Your task to perform on an android device: Turn off the flashlight Image 0: 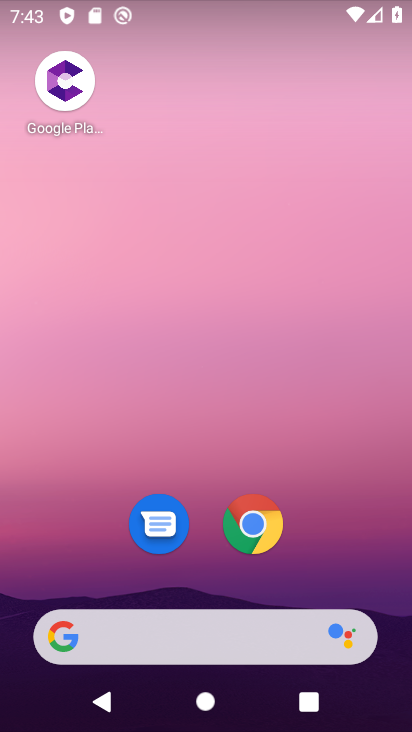
Step 0: drag from (289, 452) to (265, 16)
Your task to perform on an android device: Turn off the flashlight Image 1: 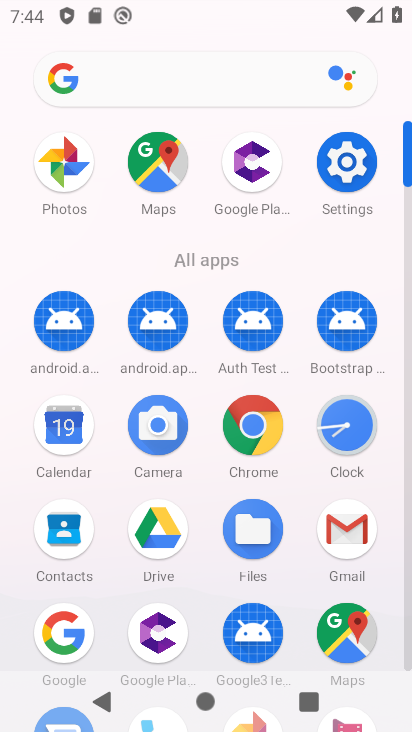
Step 1: click (353, 160)
Your task to perform on an android device: Turn off the flashlight Image 2: 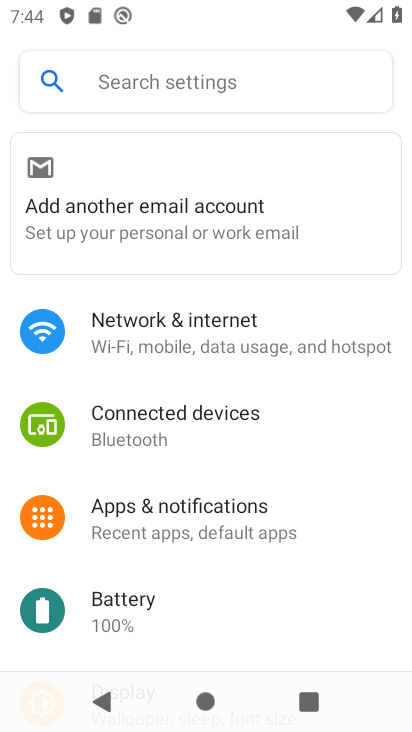
Step 2: click (266, 64)
Your task to perform on an android device: Turn off the flashlight Image 3: 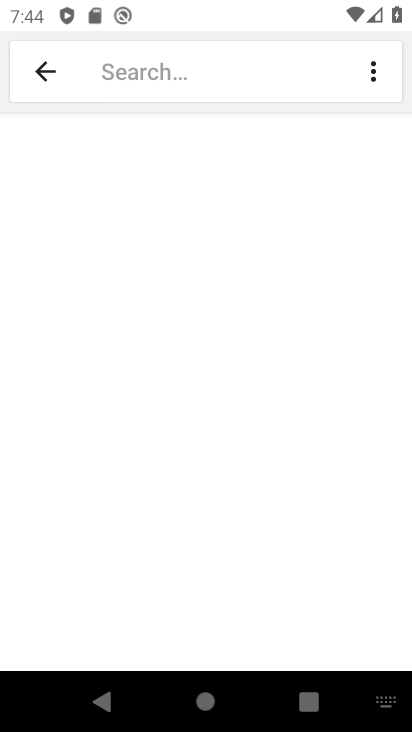
Step 3: type "Flashlight"
Your task to perform on an android device: Turn off the flashlight Image 4: 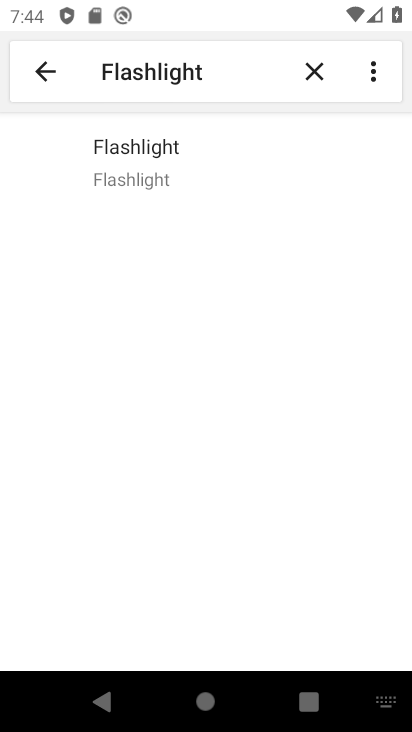
Step 4: click (125, 153)
Your task to perform on an android device: Turn off the flashlight Image 5: 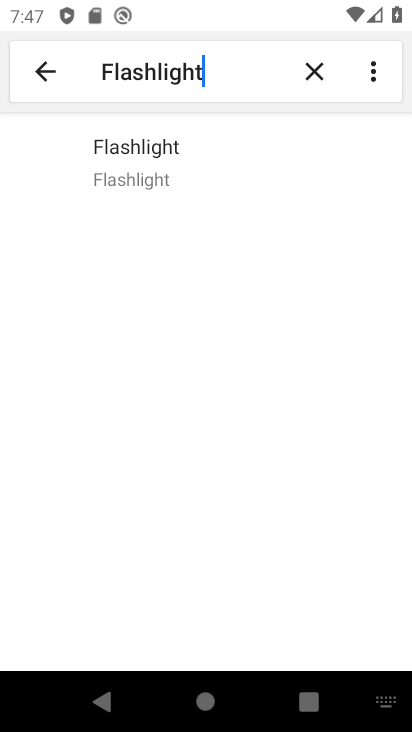
Step 5: task complete